Your task to perform on an android device: Show me the alarms in the clock app Image 0: 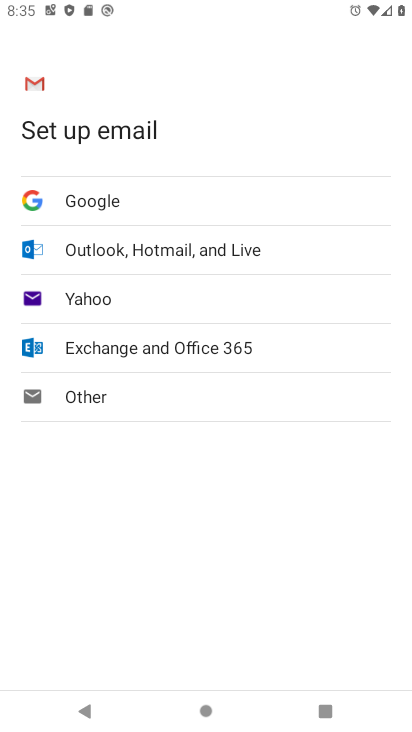
Step 0: press home button
Your task to perform on an android device: Show me the alarms in the clock app Image 1: 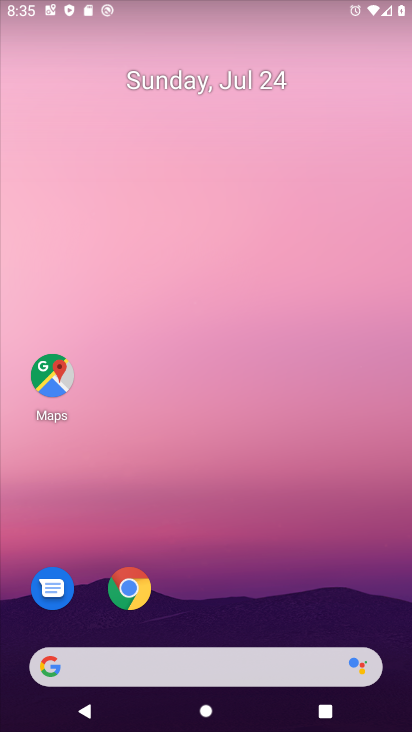
Step 1: drag from (237, 446) to (117, 4)
Your task to perform on an android device: Show me the alarms in the clock app Image 2: 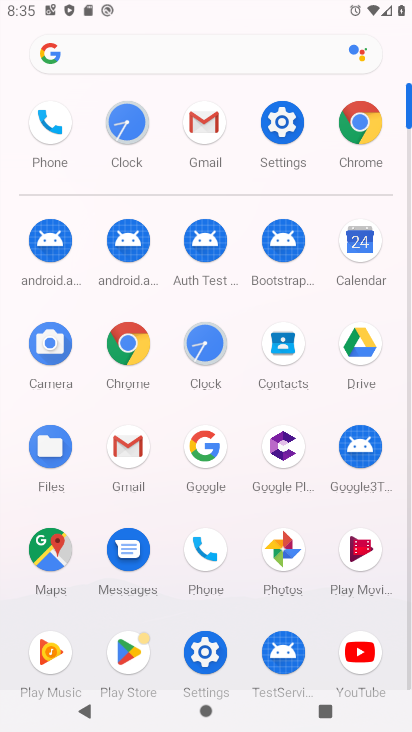
Step 2: click (210, 350)
Your task to perform on an android device: Show me the alarms in the clock app Image 3: 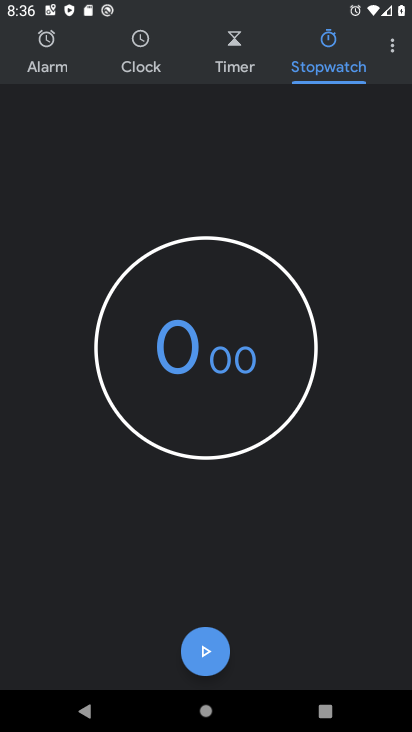
Step 3: click (31, 53)
Your task to perform on an android device: Show me the alarms in the clock app Image 4: 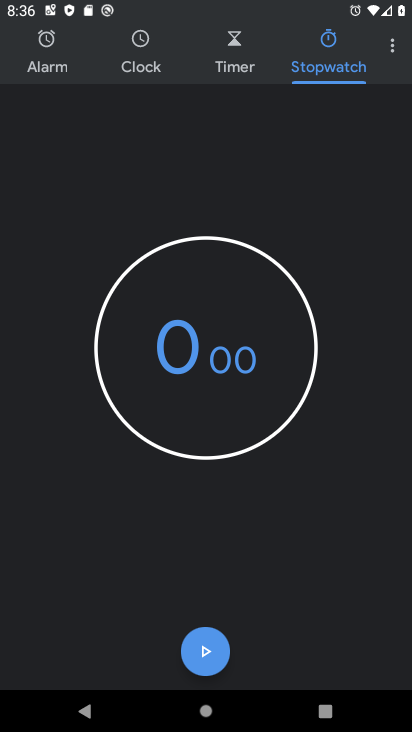
Step 4: click (62, 58)
Your task to perform on an android device: Show me the alarms in the clock app Image 5: 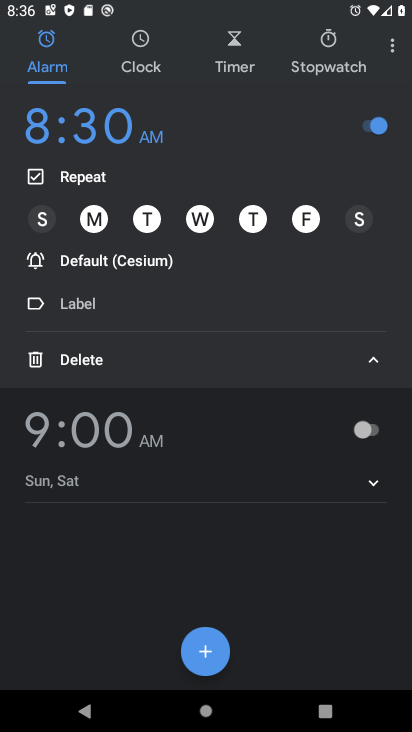
Step 5: task complete